Your task to perform on an android device: Open battery settings Image 0: 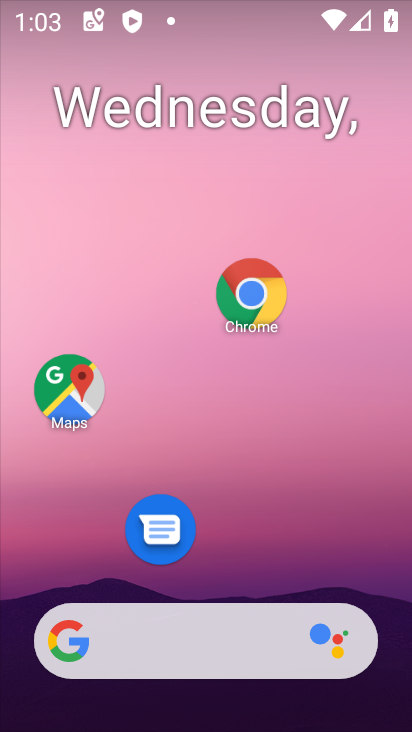
Step 0: drag from (275, 588) to (289, 434)
Your task to perform on an android device: Open battery settings Image 1: 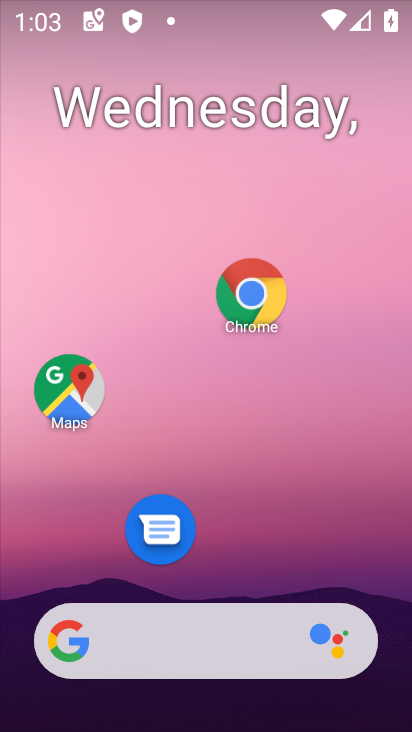
Step 1: drag from (309, 644) to (353, 202)
Your task to perform on an android device: Open battery settings Image 2: 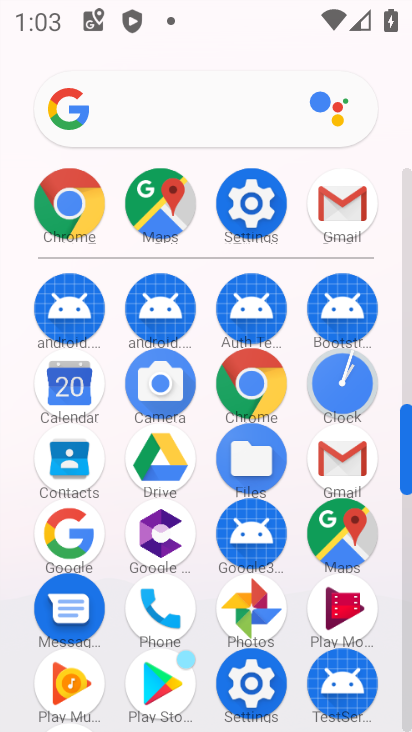
Step 2: click (264, 205)
Your task to perform on an android device: Open battery settings Image 3: 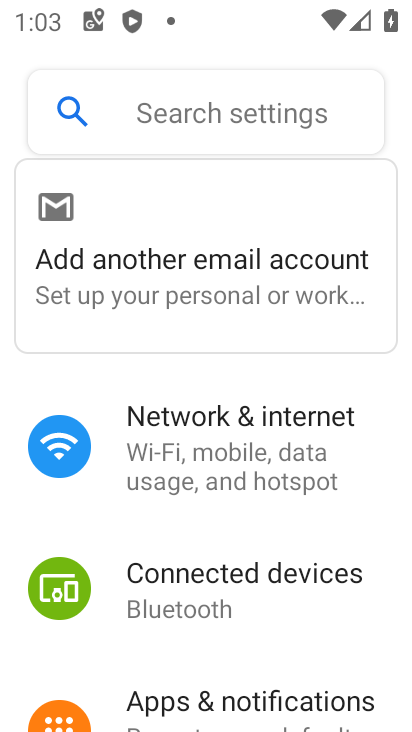
Step 3: drag from (263, 611) to (268, 332)
Your task to perform on an android device: Open battery settings Image 4: 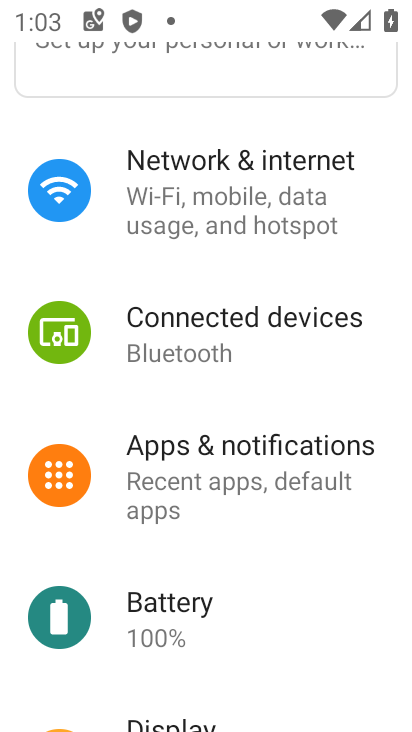
Step 4: click (246, 614)
Your task to perform on an android device: Open battery settings Image 5: 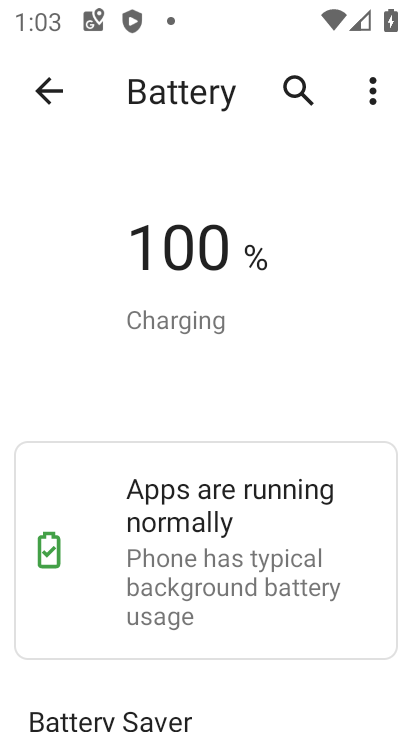
Step 5: task complete